Your task to perform on an android device: Open the web browser Image 0: 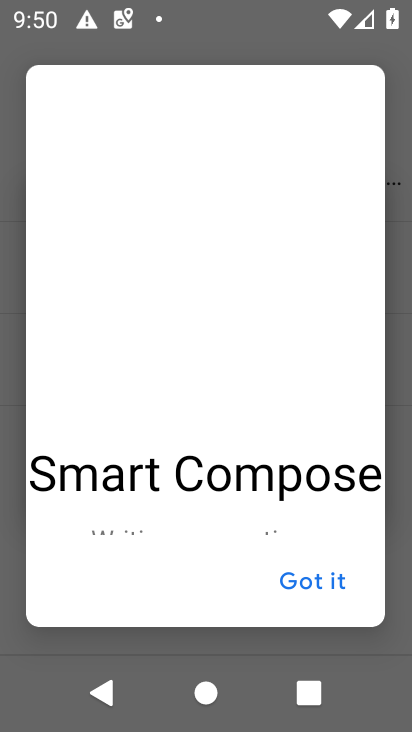
Step 0: press home button
Your task to perform on an android device: Open the web browser Image 1: 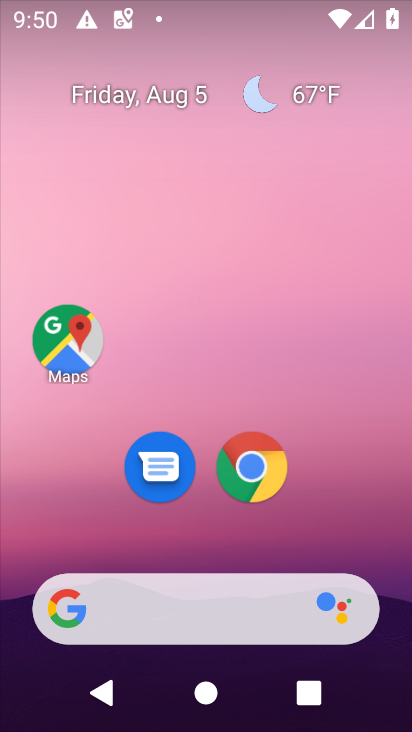
Step 1: drag from (117, 544) to (87, 164)
Your task to perform on an android device: Open the web browser Image 2: 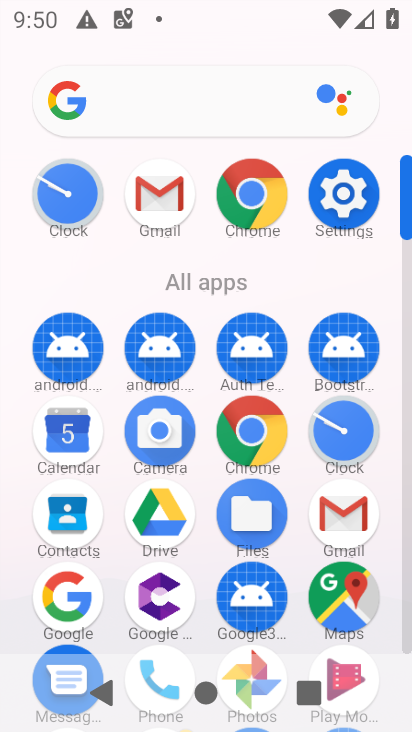
Step 2: click (78, 603)
Your task to perform on an android device: Open the web browser Image 3: 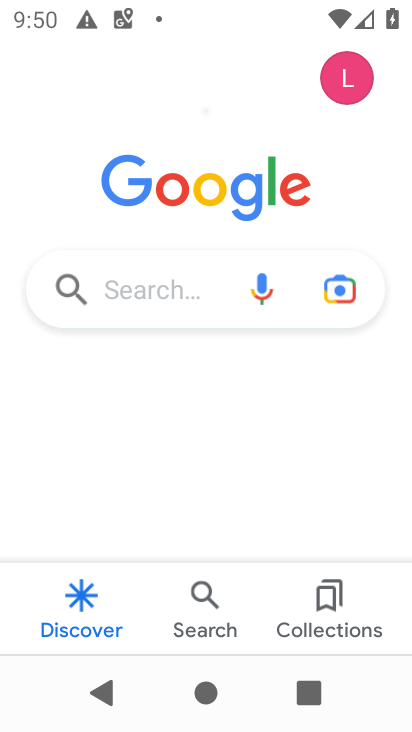
Step 3: click (186, 281)
Your task to perform on an android device: Open the web browser Image 4: 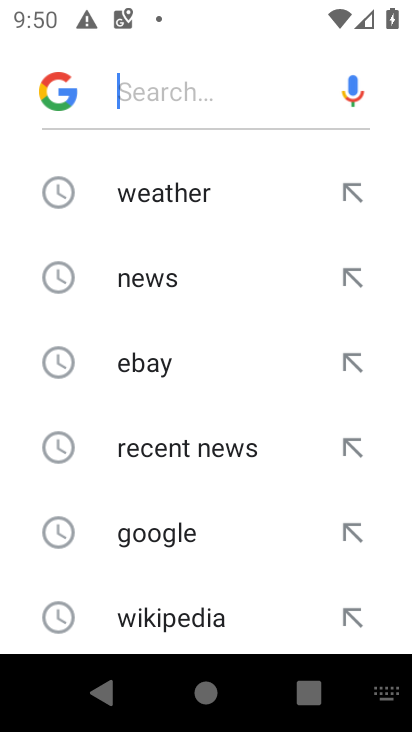
Step 4: task complete